Your task to perform on an android device: Open location settings Image 0: 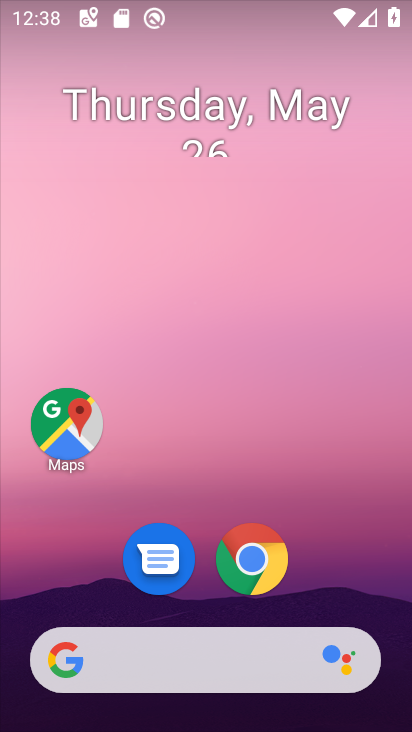
Step 0: press home button
Your task to perform on an android device: Open location settings Image 1: 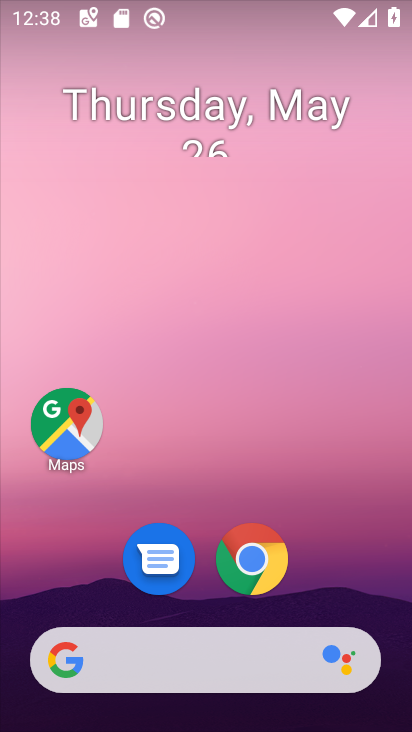
Step 1: drag from (325, 610) to (324, 32)
Your task to perform on an android device: Open location settings Image 2: 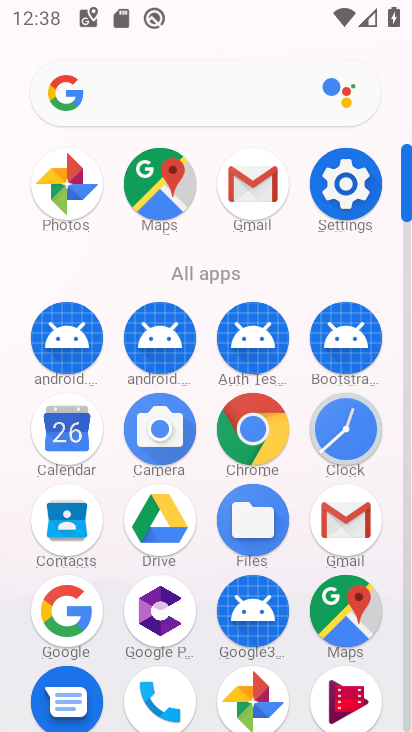
Step 2: click (350, 189)
Your task to perform on an android device: Open location settings Image 3: 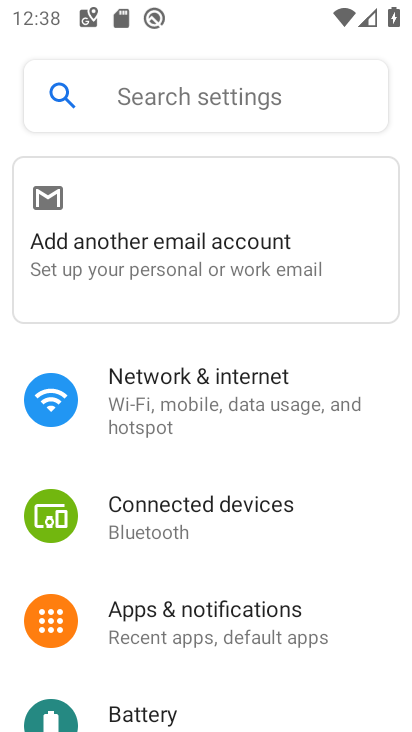
Step 3: drag from (281, 645) to (369, 15)
Your task to perform on an android device: Open location settings Image 4: 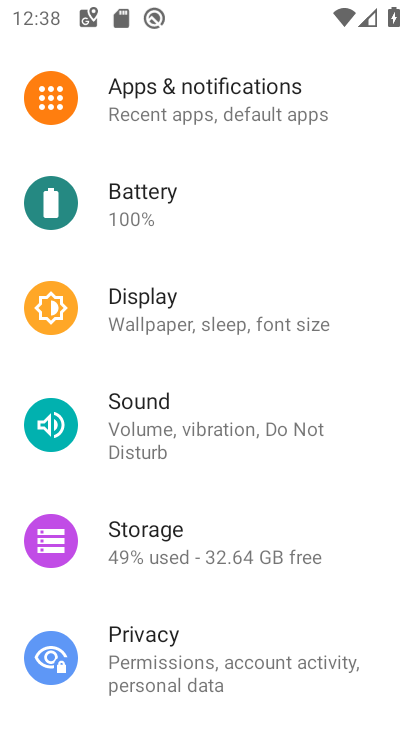
Step 4: drag from (306, 598) to (315, 142)
Your task to perform on an android device: Open location settings Image 5: 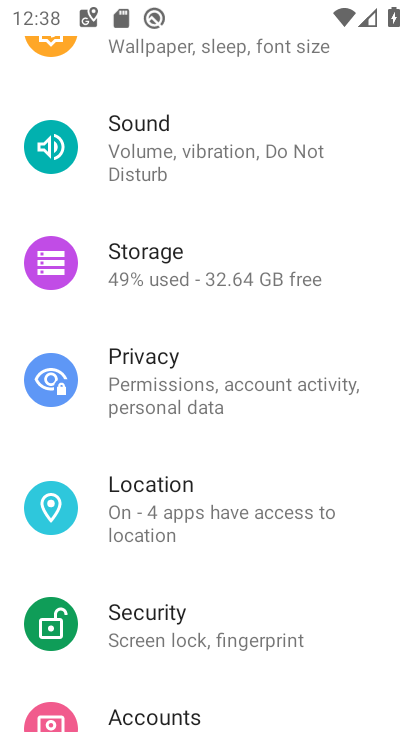
Step 5: click (151, 506)
Your task to perform on an android device: Open location settings Image 6: 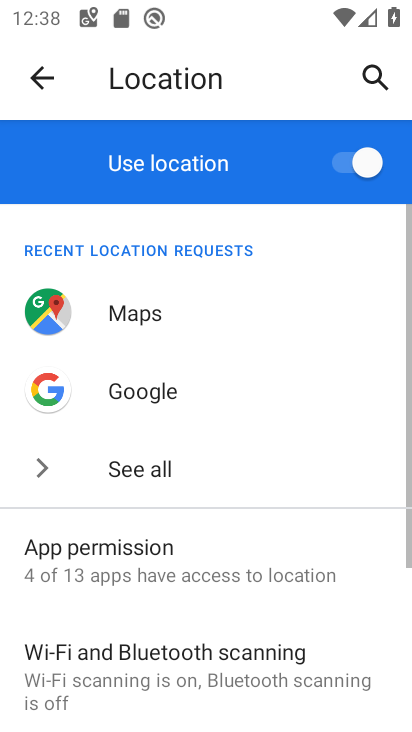
Step 6: task complete